Your task to perform on an android device: open app "Google Chrome" (install if not already installed) Image 0: 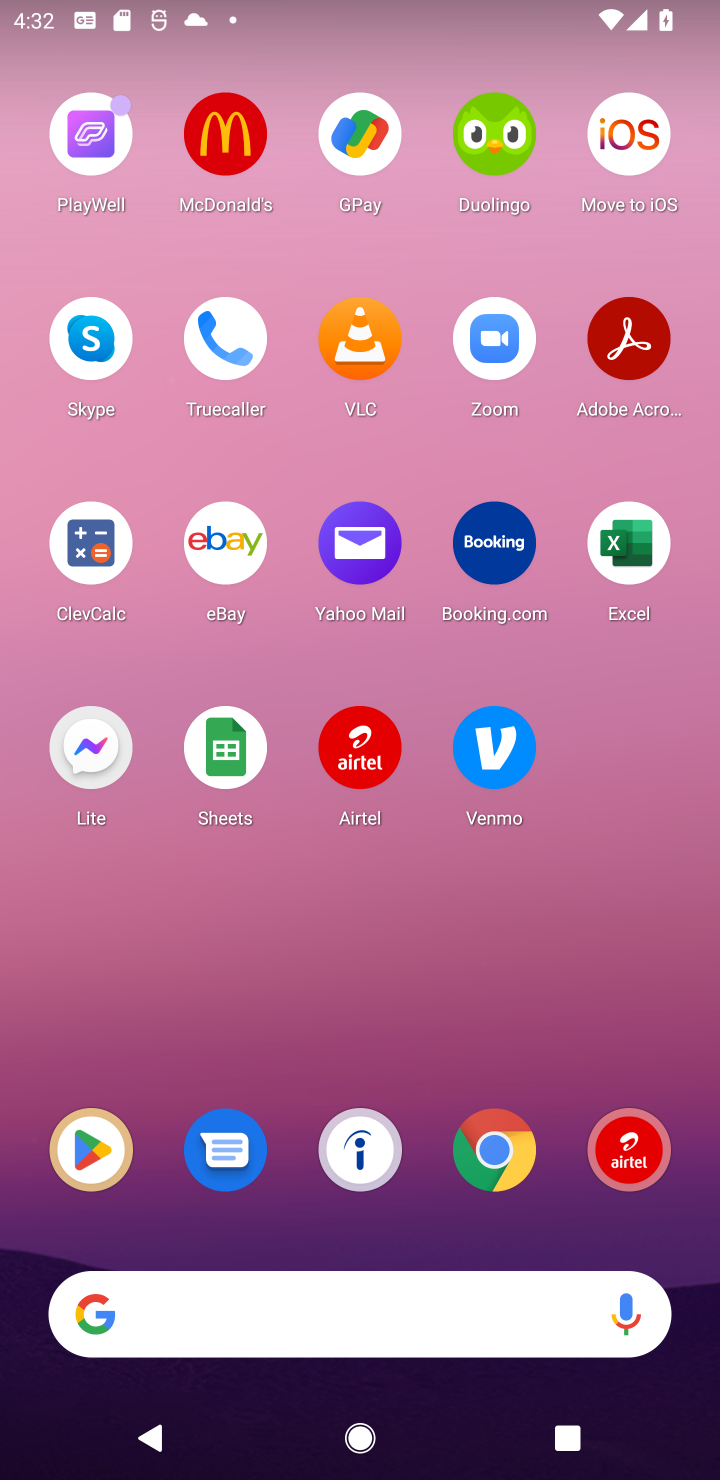
Step 0: click (528, 1185)
Your task to perform on an android device: open app "Google Chrome" (install if not already installed) Image 1: 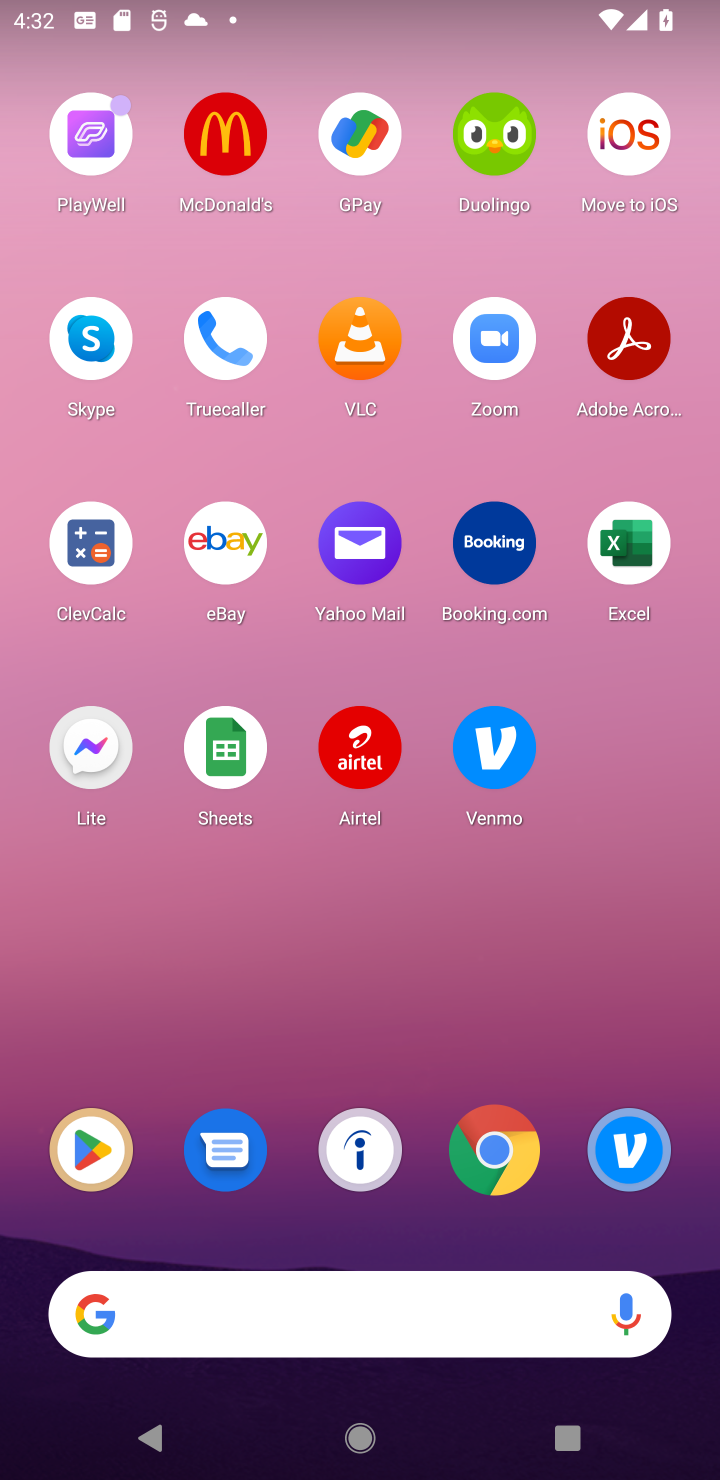
Step 1: task complete